Your task to perform on an android device: open the mobile data screen to see how much data has been used Image 0: 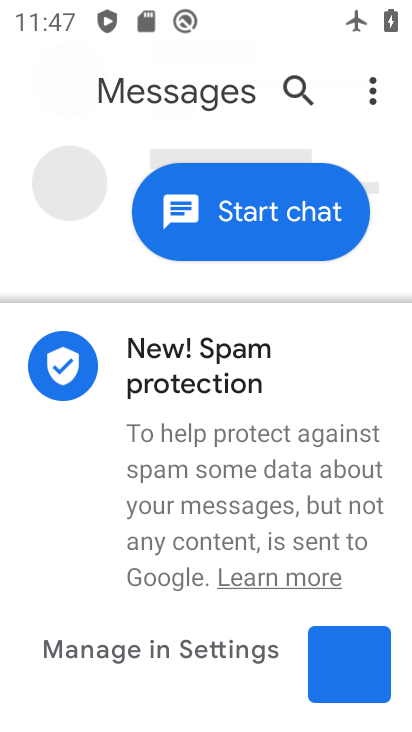
Step 0: press home button
Your task to perform on an android device: open the mobile data screen to see how much data has been used Image 1: 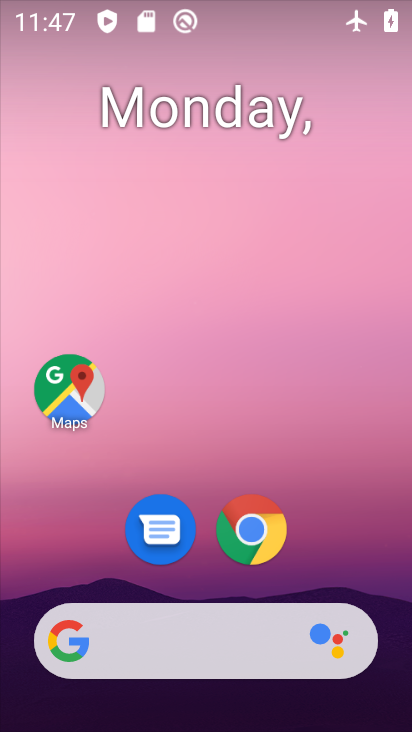
Step 1: drag from (201, 720) to (206, 78)
Your task to perform on an android device: open the mobile data screen to see how much data has been used Image 2: 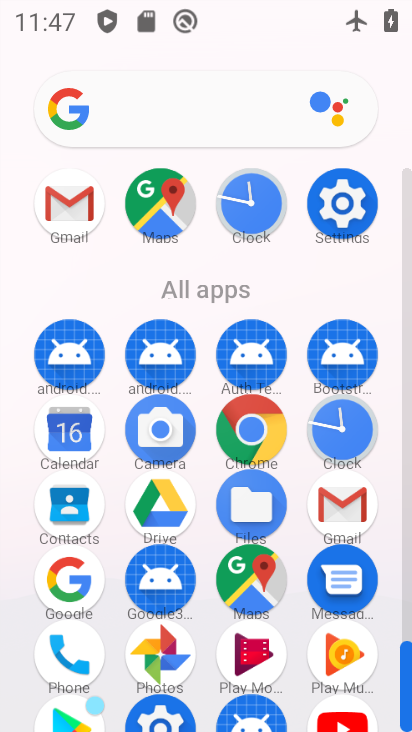
Step 2: click (352, 197)
Your task to perform on an android device: open the mobile data screen to see how much data has been used Image 3: 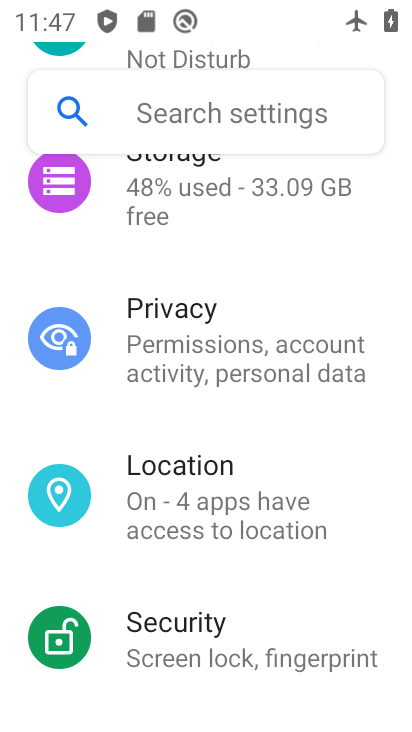
Step 3: drag from (261, 279) to (283, 595)
Your task to perform on an android device: open the mobile data screen to see how much data has been used Image 4: 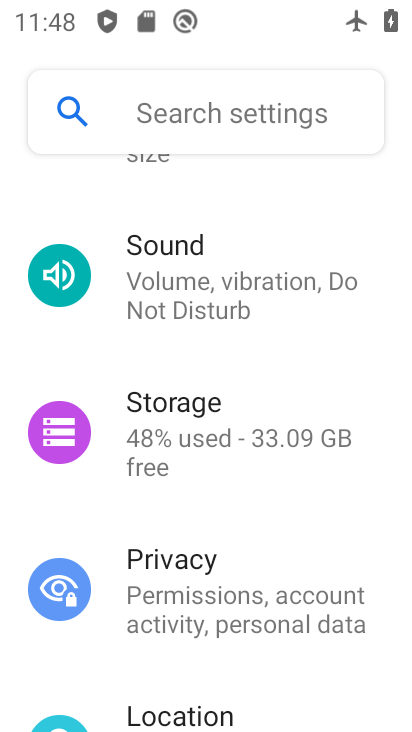
Step 4: drag from (248, 201) to (259, 549)
Your task to perform on an android device: open the mobile data screen to see how much data has been used Image 5: 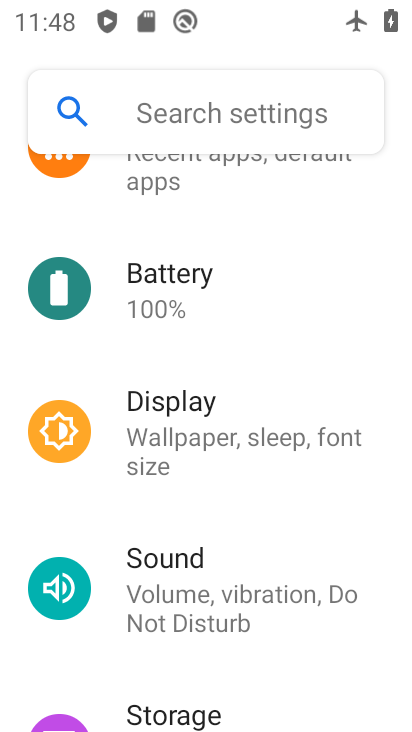
Step 5: drag from (235, 210) to (231, 590)
Your task to perform on an android device: open the mobile data screen to see how much data has been used Image 6: 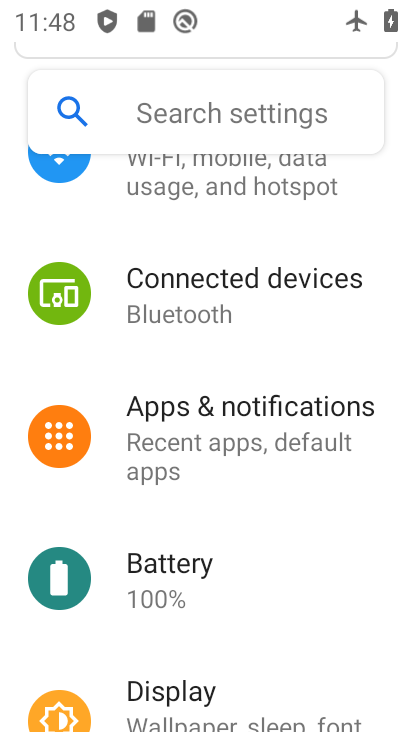
Step 6: drag from (223, 207) to (217, 591)
Your task to perform on an android device: open the mobile data screen to see how much data has been used Image 7: 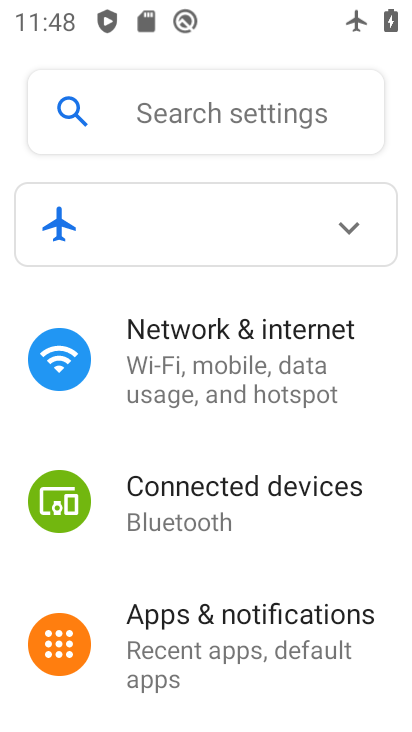
Step 7: click (199, 368)
Your task to perform on an android device: open the mobile data screen to see how much data has been used Image 8: 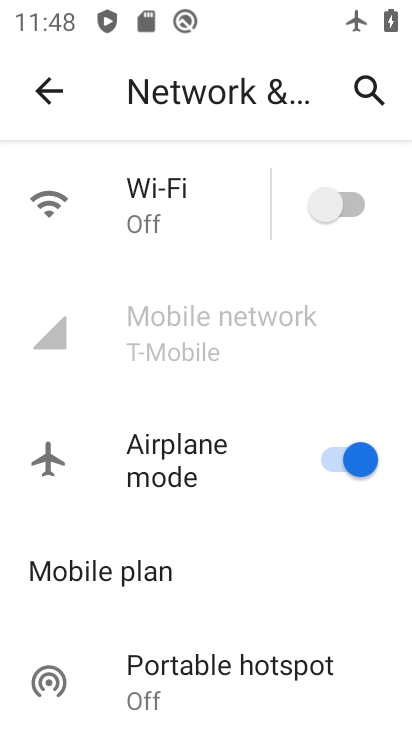
Step 8: click (338, 460)
Your task to perform on an android device: open the mobile data screen to see how much data has been used Image 9: 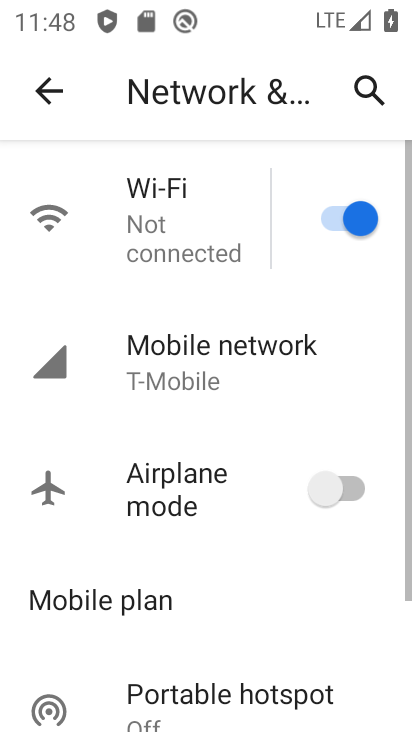
Step 9: click (212, 341)
Your task to perform on an android device: open the mobile data screen to see how much data has been used Image 10: 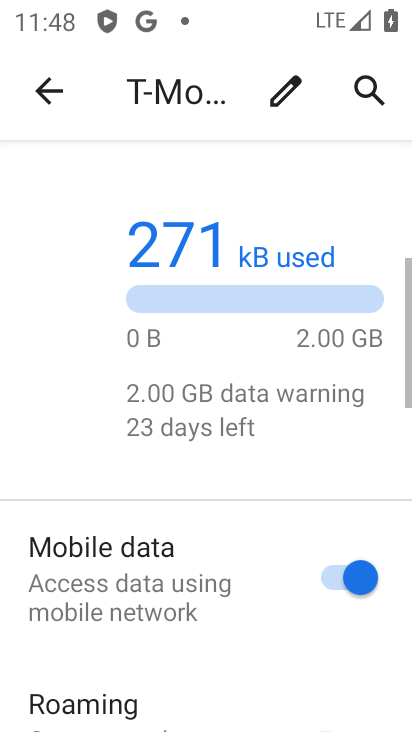
Step 10: drag from (195, 668) to (173, 271)
Your task to perform on an android device: open the mobile data screen to see how much data has been used Image 11: 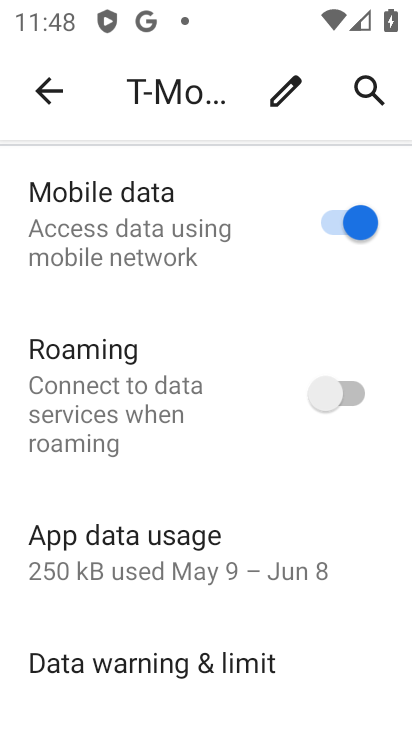
Step 11: click (144, 544)
Your task to perform on an android device: open the mobile data screen to see how much data has been used Image 12: 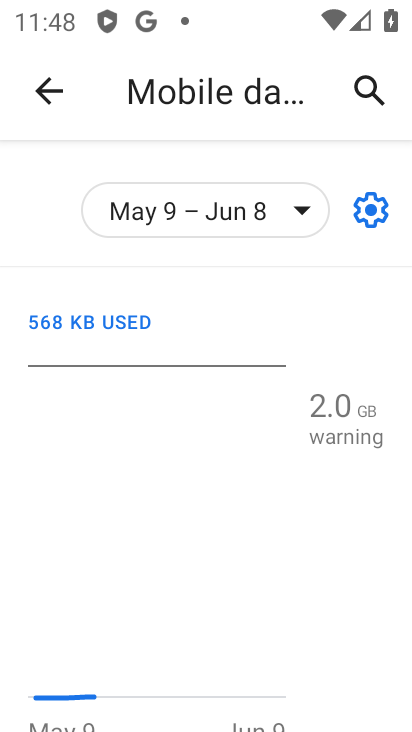
Step 12: task complete